Your task to perform on an android device: Open Amazon Image 0: 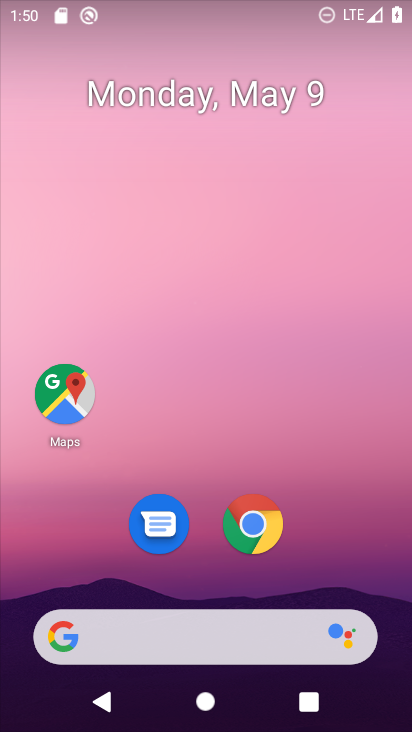
Step 0: click (254, 497)
Your task to perform on an android device: Open Amazon Image 1: 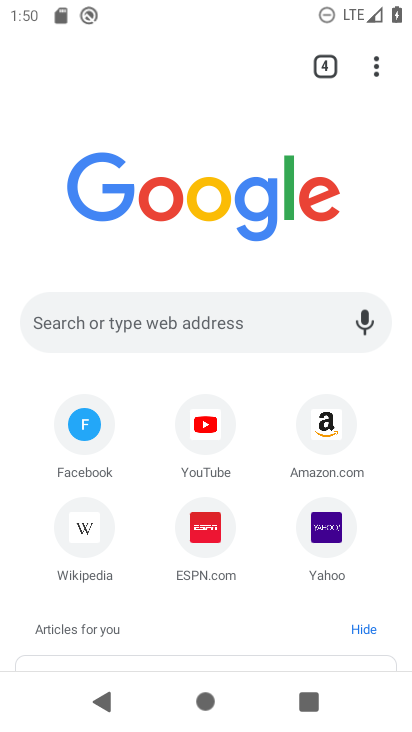
Step 1: click (326, 411)
Your task to perform on an android device: Open Amazon Image 2: 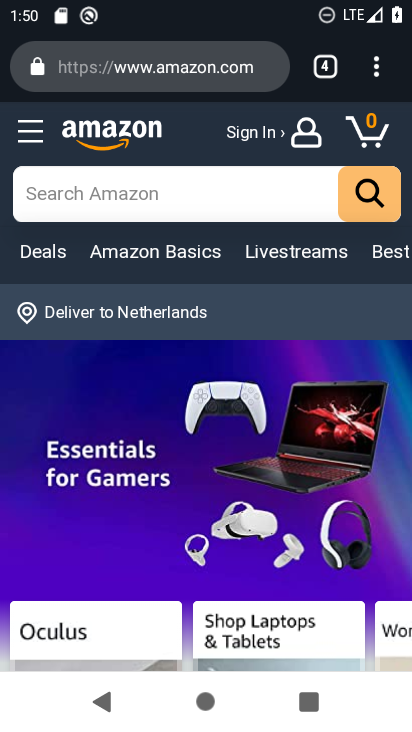
Step 2: task complete